Your task to perform on an android device: Set the phone to "Do not disturb". Image 0: 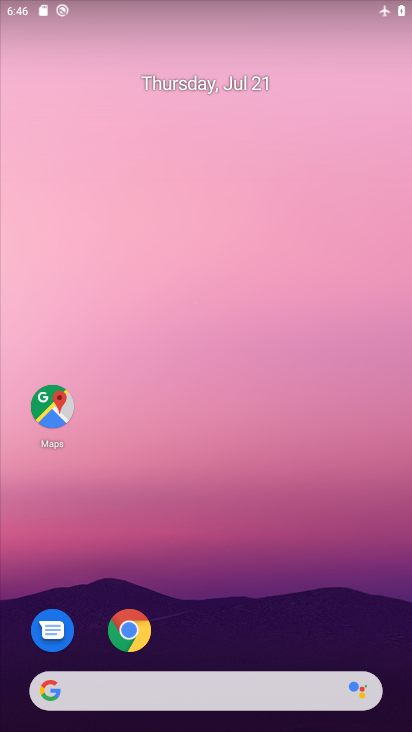
Step 0: drag from (190, 683) to (275, 167)
Your task to perform on an android device: Set the phone to "Do not disturb". Image 1: 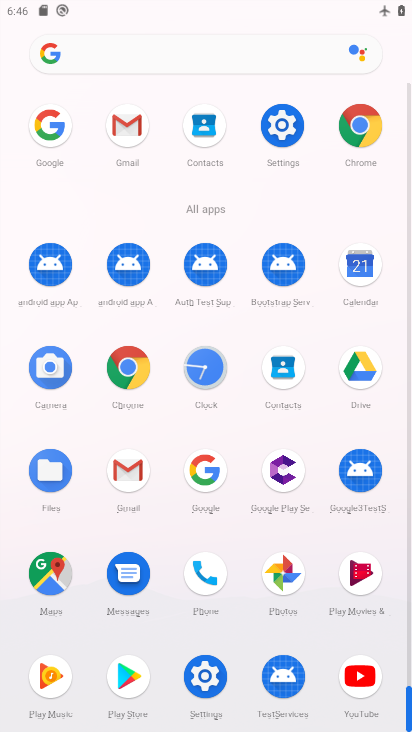
Step 1: click (280, 125)
Your task to perform on an android device: Set the phone to "Do not disturb". Image 2: 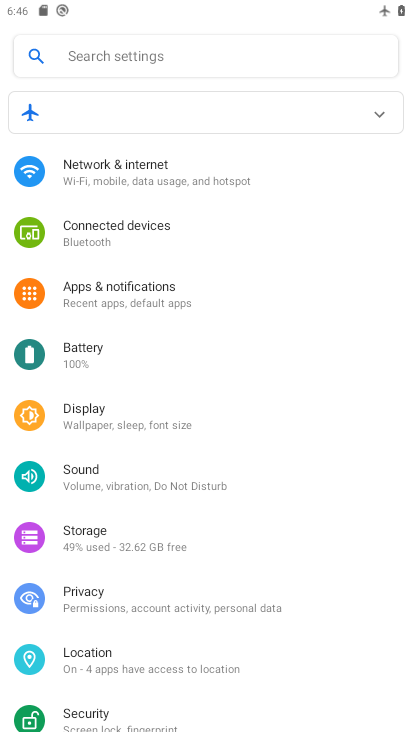
Step 2: click (137, 486)
Your task to perform on an android device: Set the phone to "Do not disturb". Image 3: 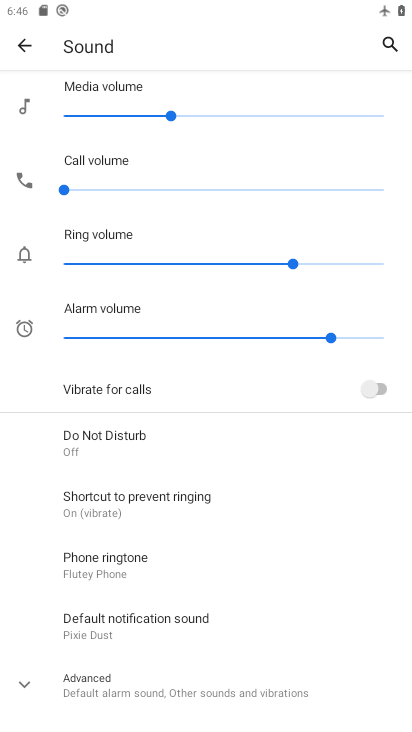
Step 3: click (132, 439)
Your task to perform on an android device: Set the phone to "Do not disturb". Image 4: 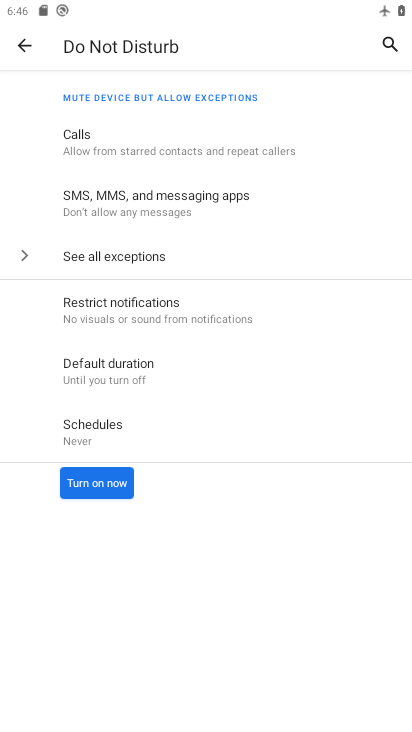
Step 4: click (100, 486)
Your task to perform on an android device: Set the phone to "Do not disturb". Image 5: 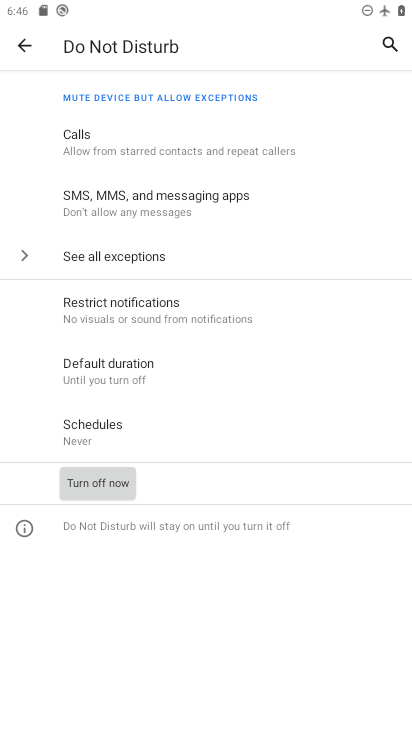
Step 5: task complete